Your task to perform on an android device: What's the weather today? Image 0: 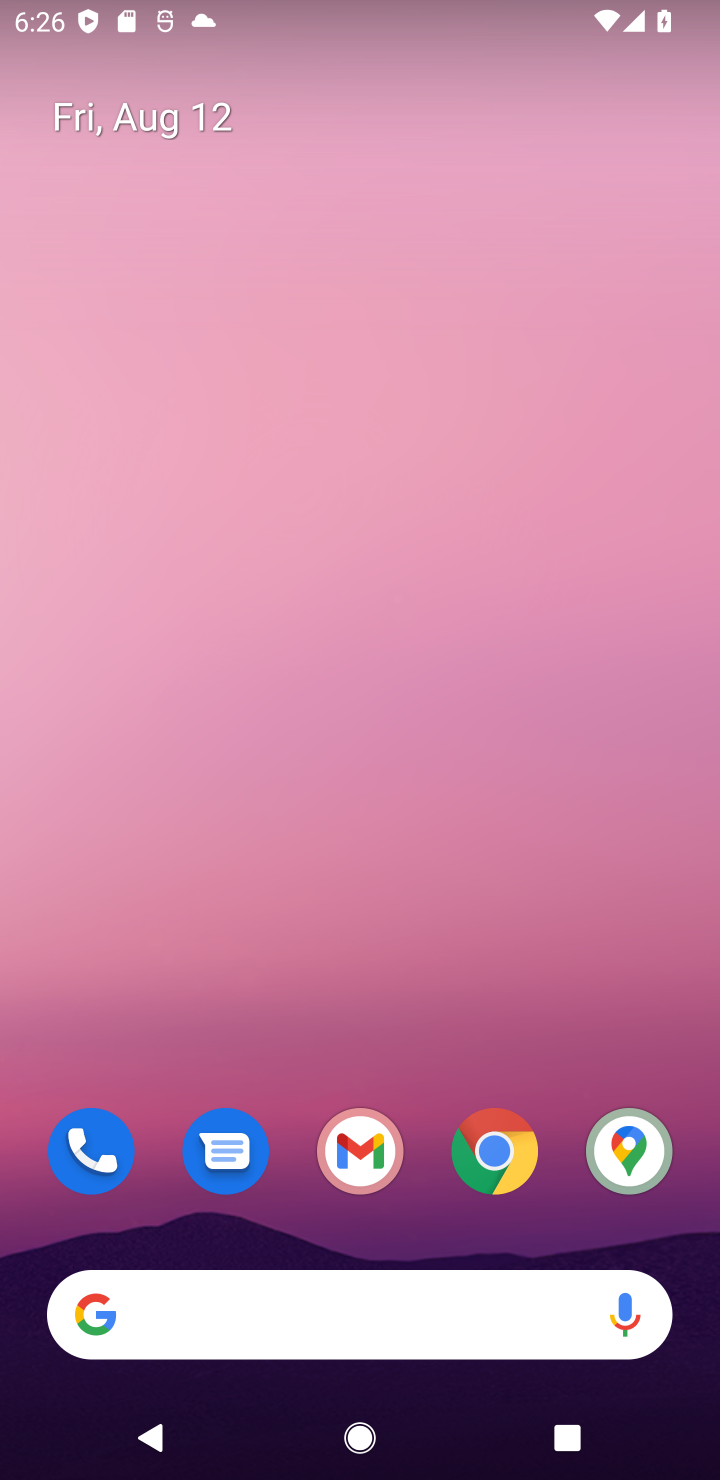
Step 0: drag from (513, 1002) to (425, 21)
Your task to perform on an android device: What's the weather today? Image 1: 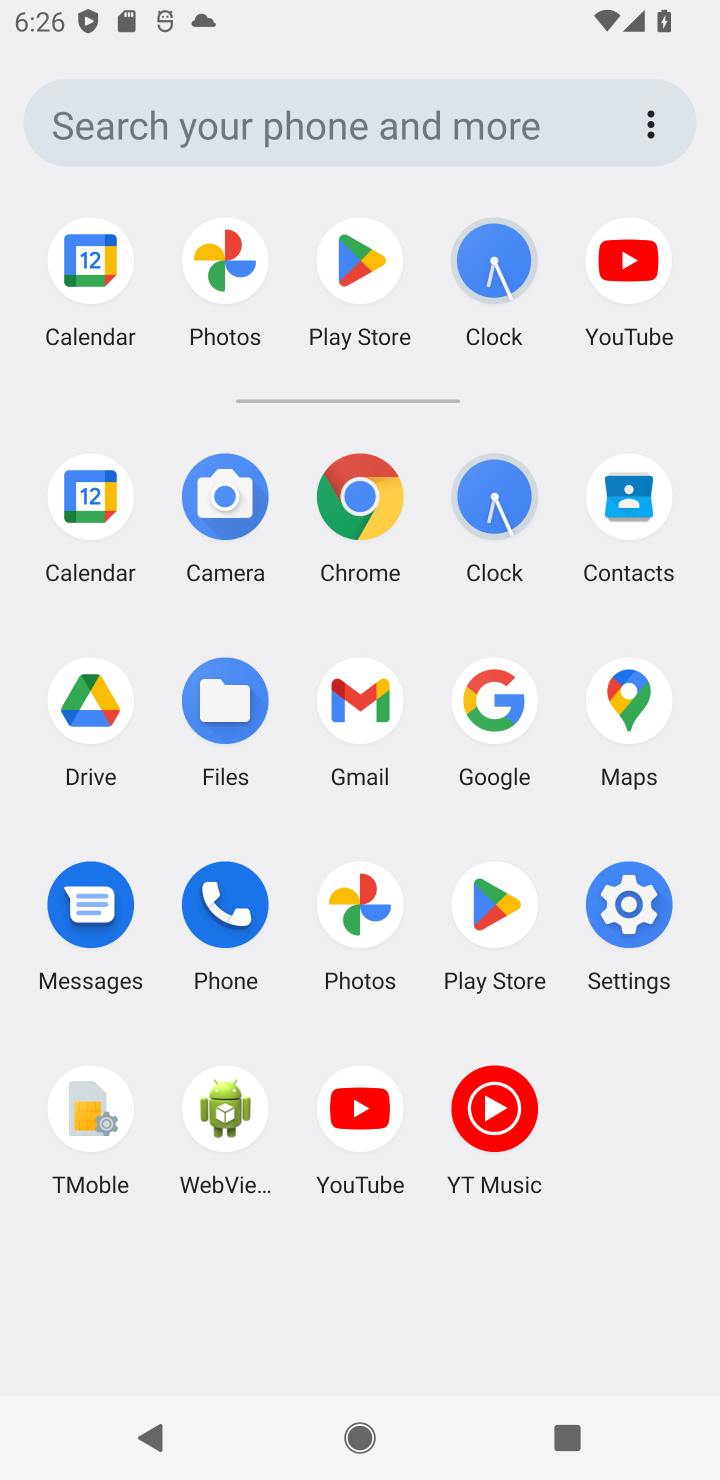
Step 1: click (354, 498)
Your task to perform on an android device: What's the weather today? Image 2: 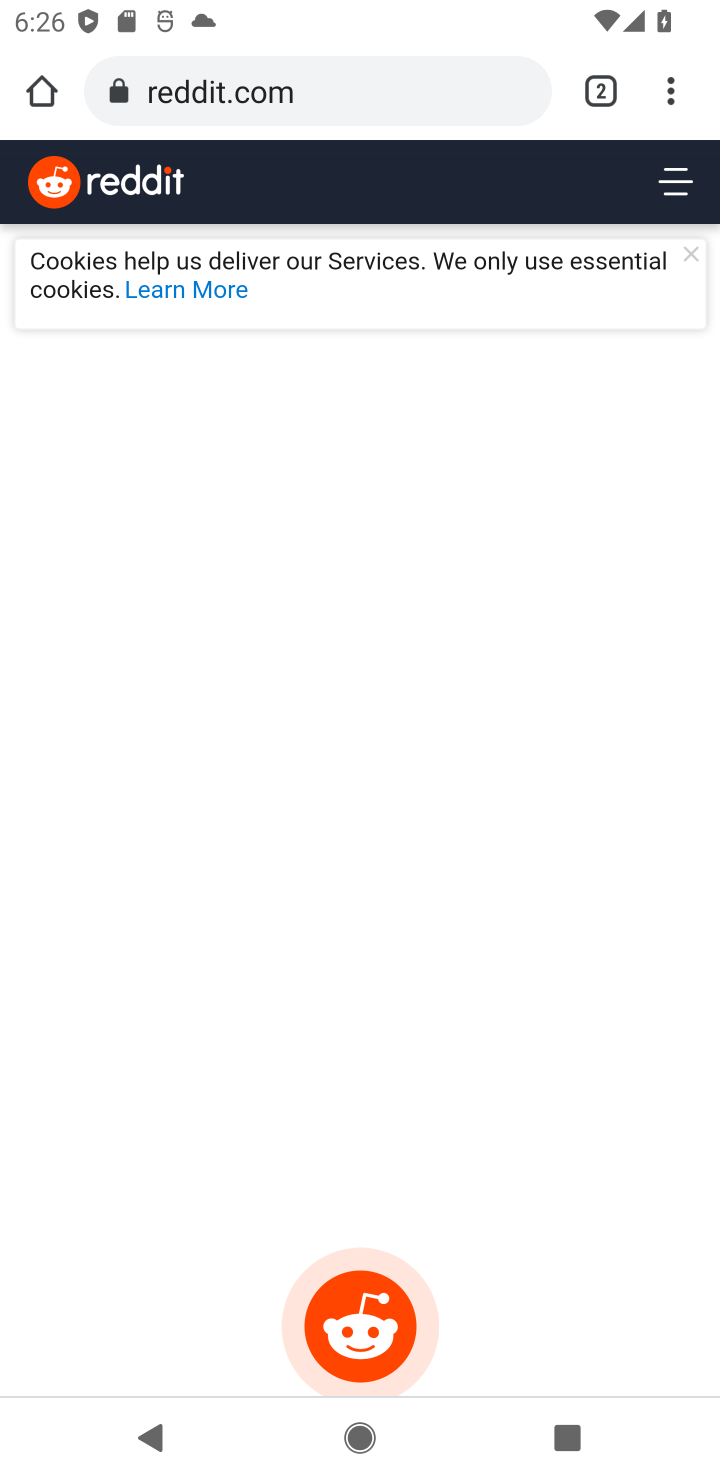
Step 2: click (353, 93)
Your task to perform on an android device: What's the weather today? Image 3: 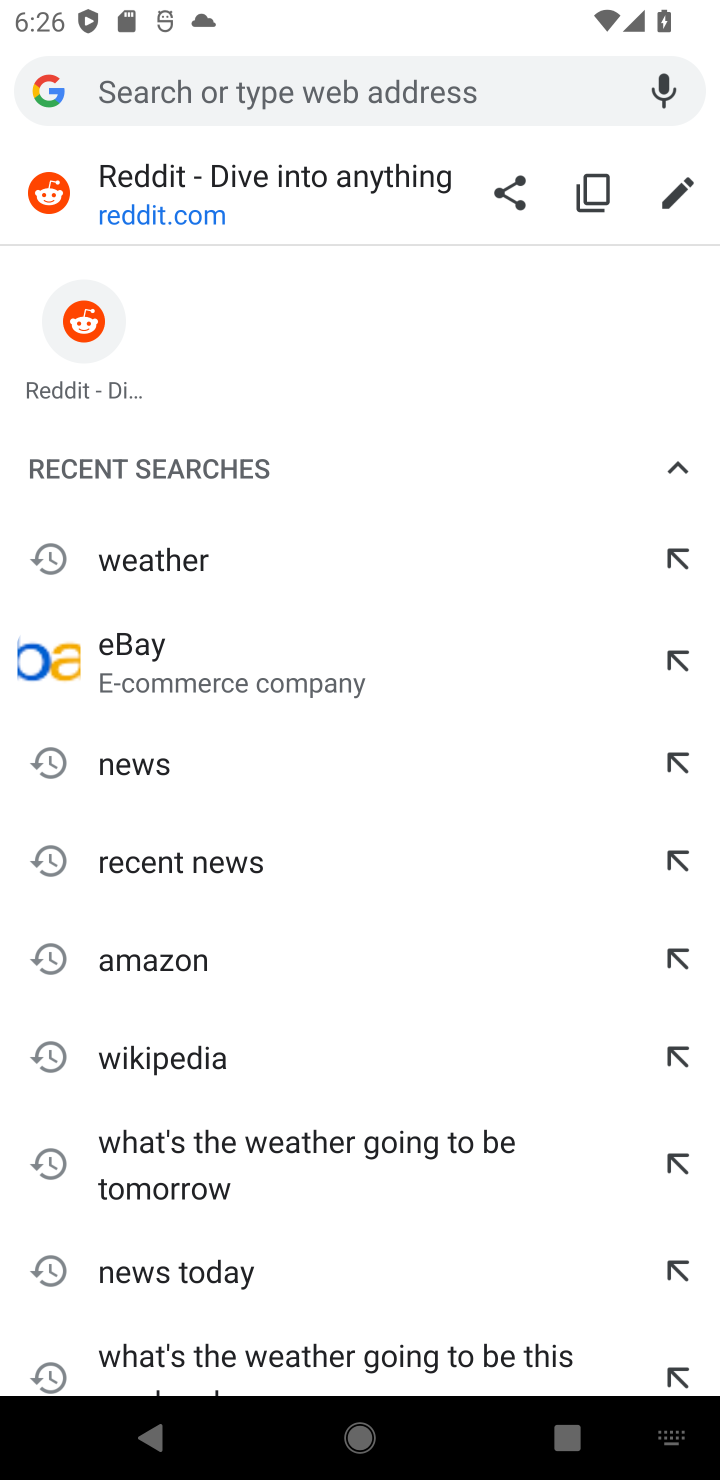
Step 3: type "weather"
Your task to perform on an android device: What's the weather today? Image 4: 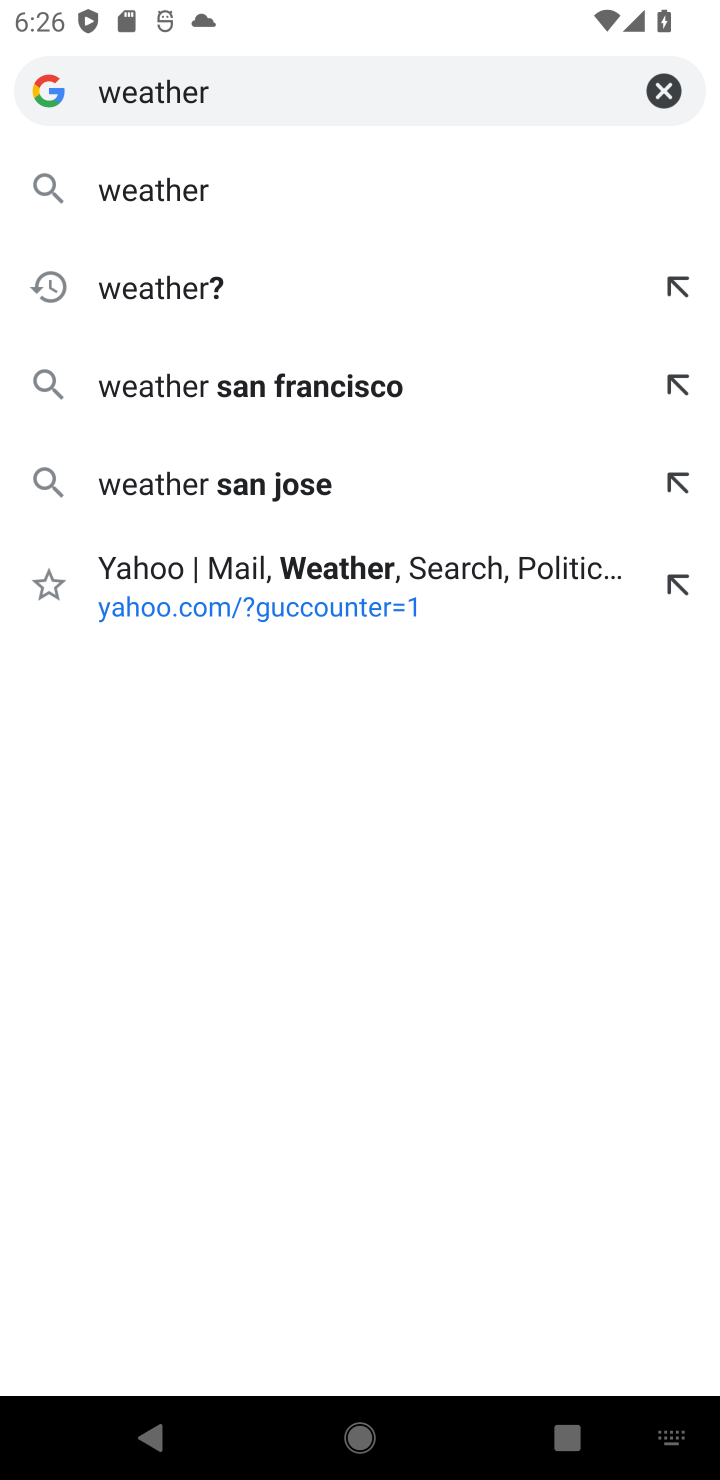
Step 4: click (134, 193)
Your task to perform on an android device: What's the weather today? Image 5: 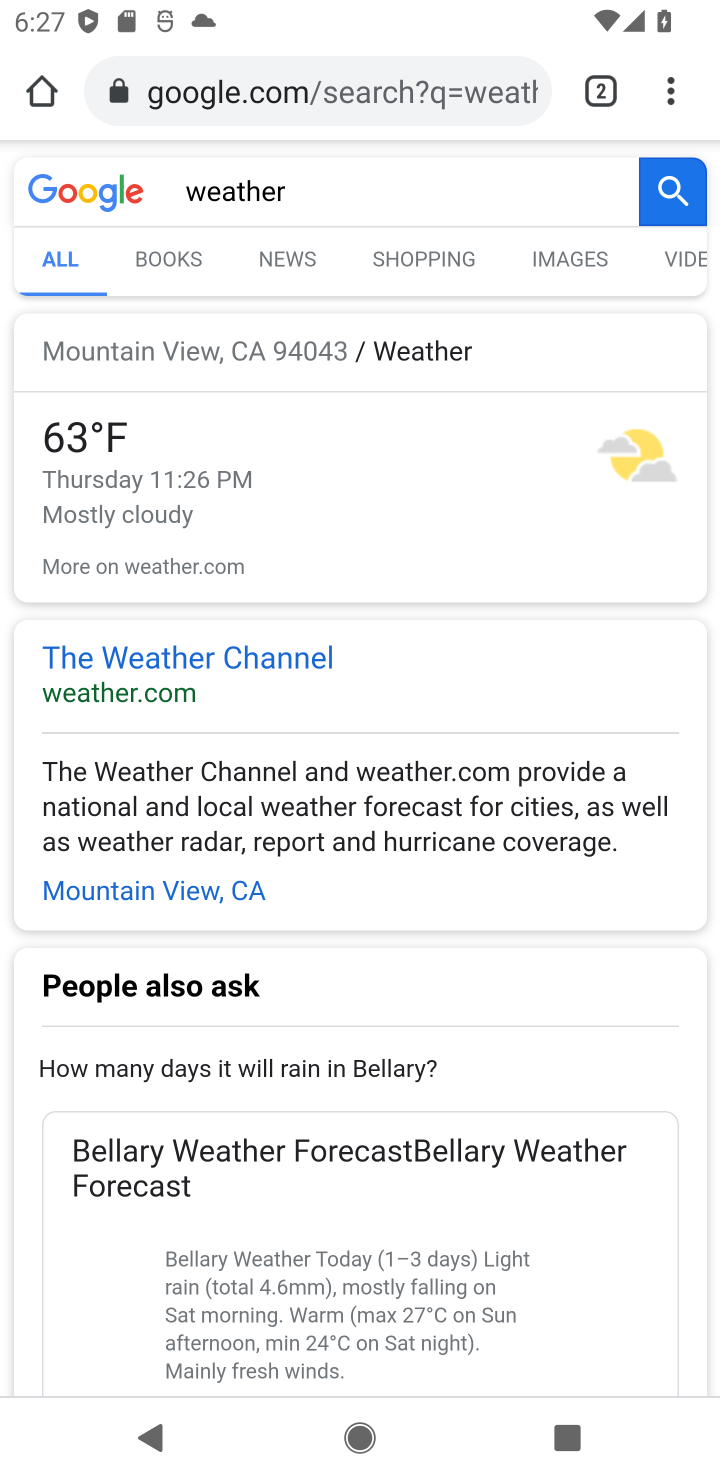
Step 5: task complete